Your task to perform on an android device: Go to location settings Image 0: 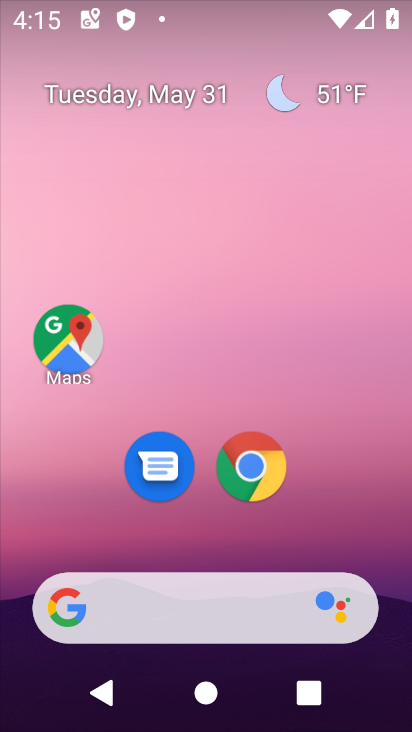
Step 0: press home button
Your task to perform on an android device: Go to location settings Image 1: 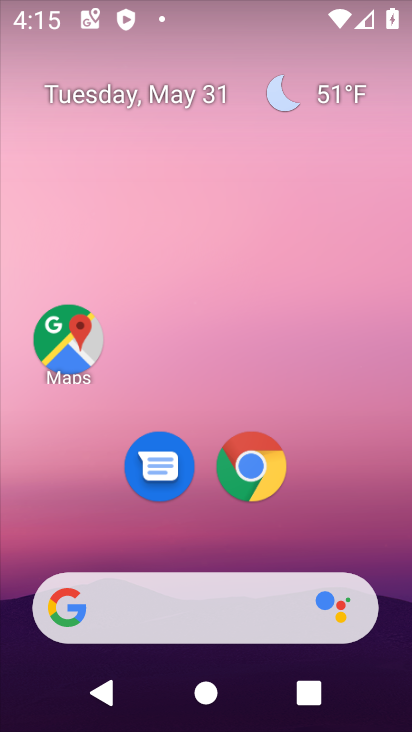
Step 1: press home button
Your task to perform on an android device: Go to location settings Image 2: 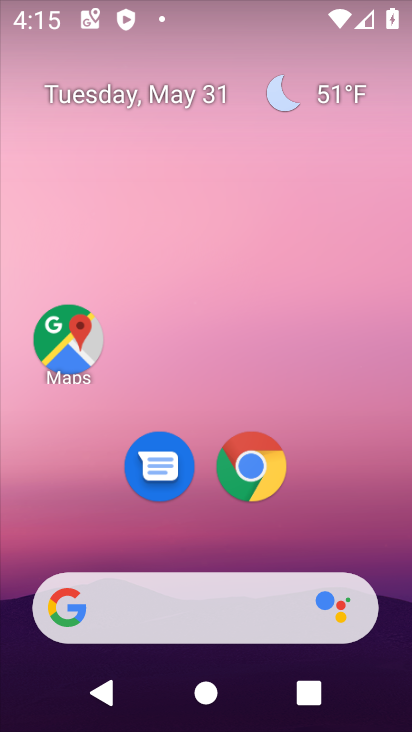
Step 2: press home button
Your task to perform on an android device: Go to location settings Image 3: 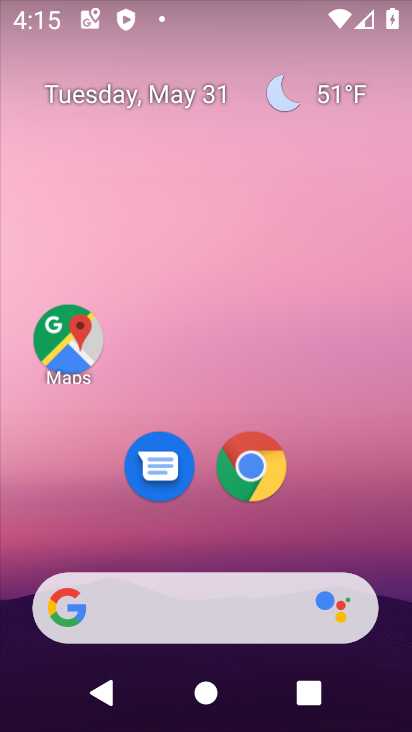
Step 3: drag from (213, 541) to (264, 33)
Your task to perform on an android device: Go to location settings Image 4: 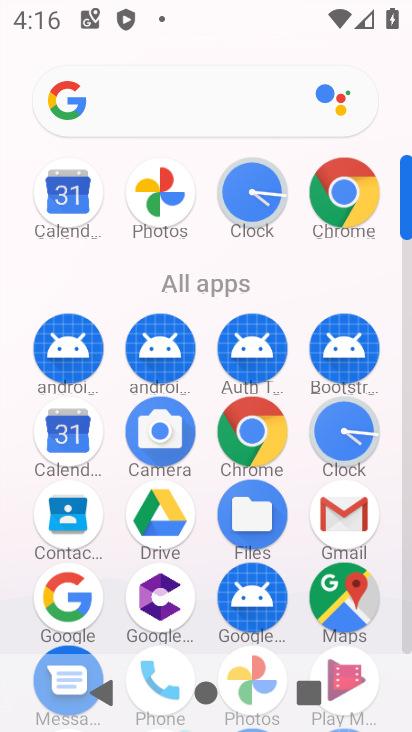
Step 4: drag from (198, 586) to (249, 134)
Your task to perform on an android device: Go to location settings Image 5: 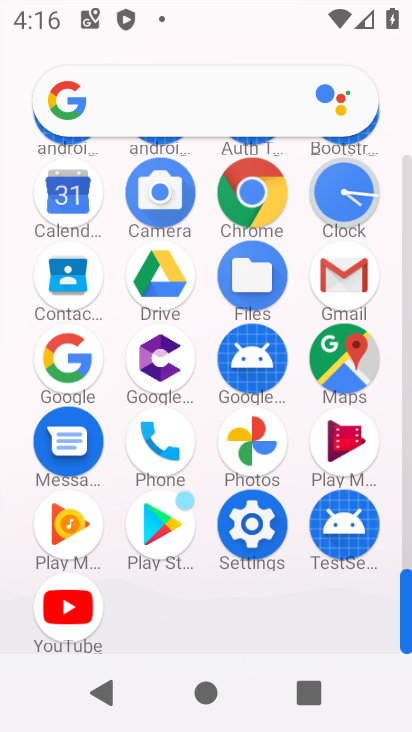
Step 5: click (251, 518)
Your task to perform on an android device: Go to location settings Image 6: 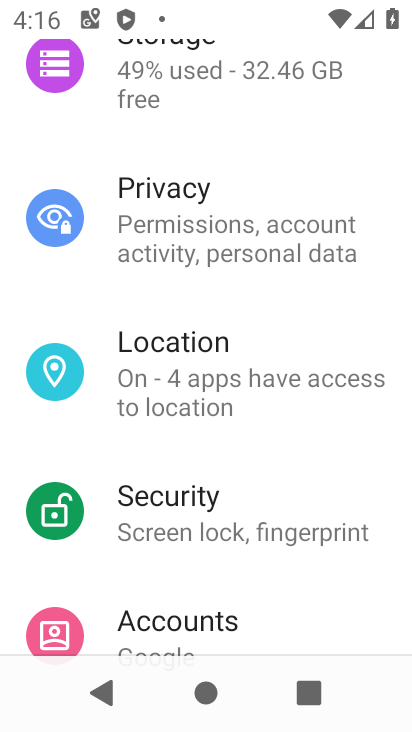
Step 6: click (219, 358)
Your task to perform on an android device: Go to location settings Image 7: 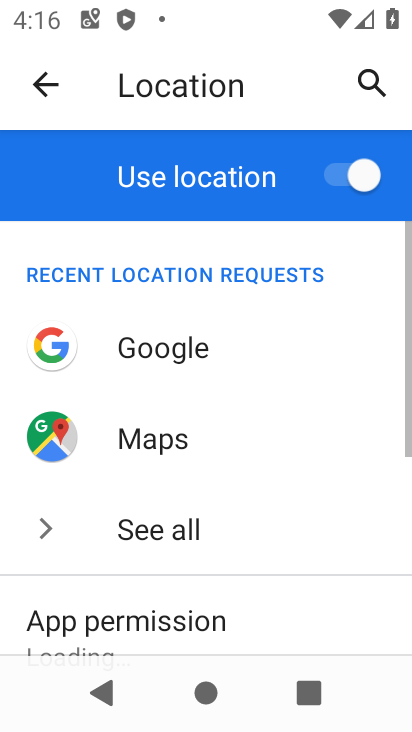
Step 7: drag from (176, 583) to (208, 154)
Your task to perform on an android device: Go to location settings Image 8: 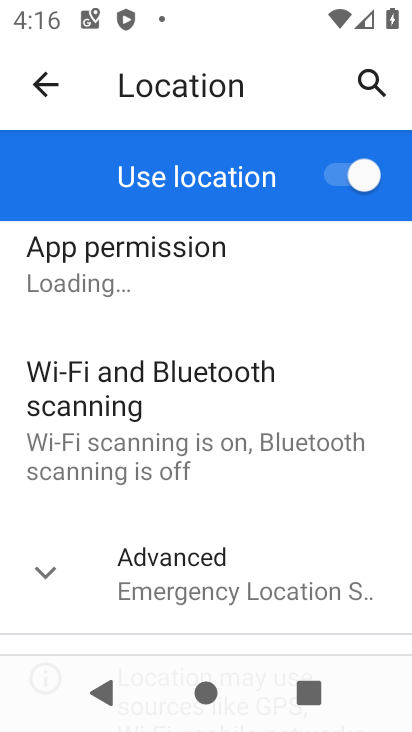
Step 8: click (89, 553)
Your task to perform on an android device: Go to location settings Image 9: 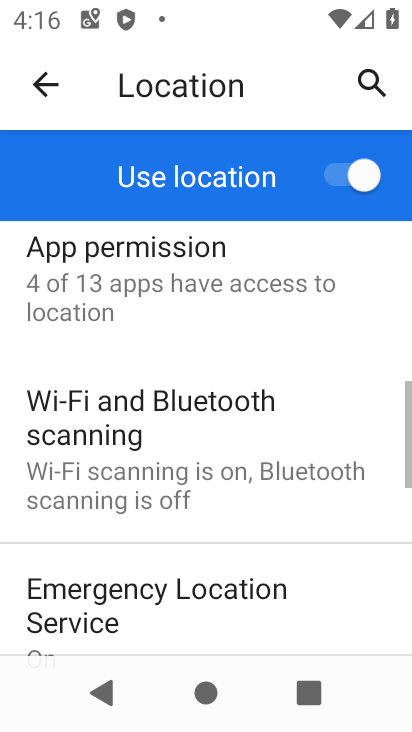
Step 9: task complete